Your task to perform on an android device: What is the news today? Image 0: 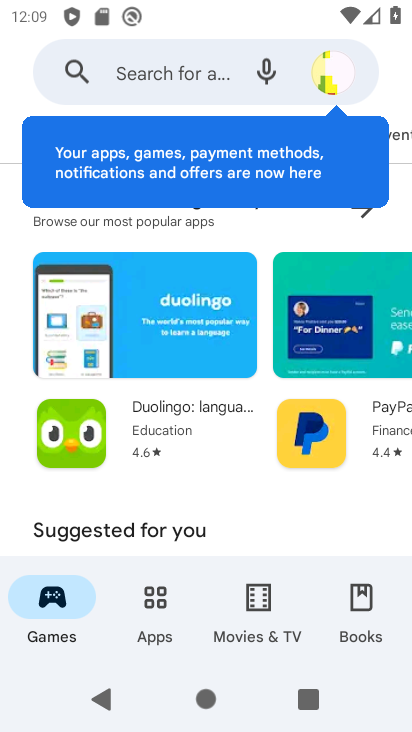
Step 0: press home button
Your task to perform on an android device: What is the news today? Image 1: 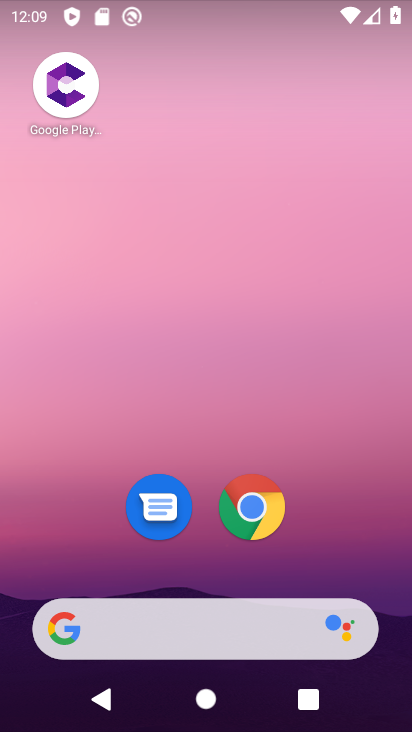
Step 1: click (257, 634)
Your task to perform on an android device: What is the news today? Image 2: 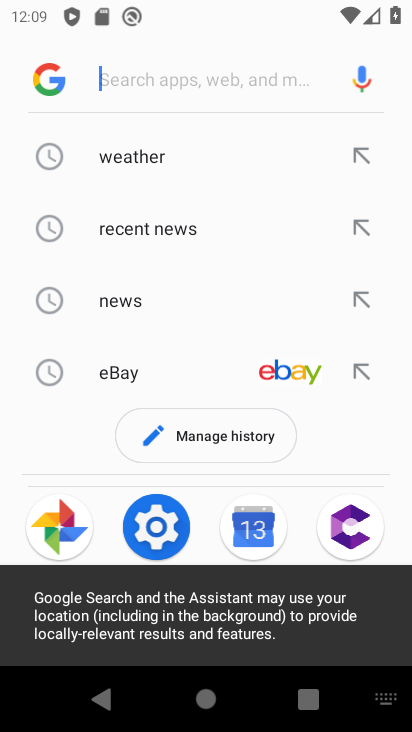
Step 2: click (163, 305)
Your task to perform on an android device: What is the news today? Image 3: 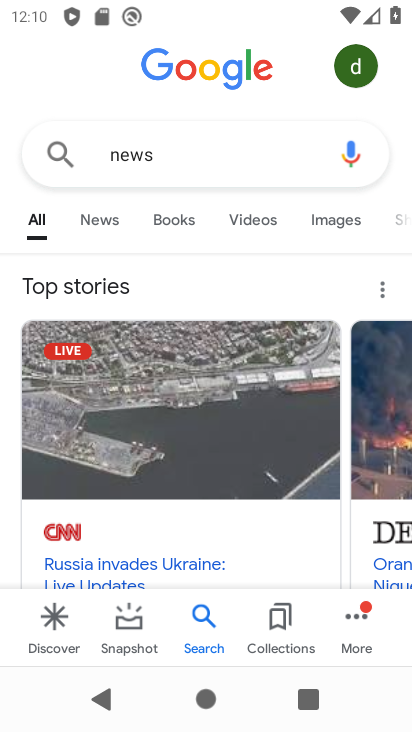
Step 3: click (102, 223)
Your task to perform on an android device: What is the news today? Image 4: 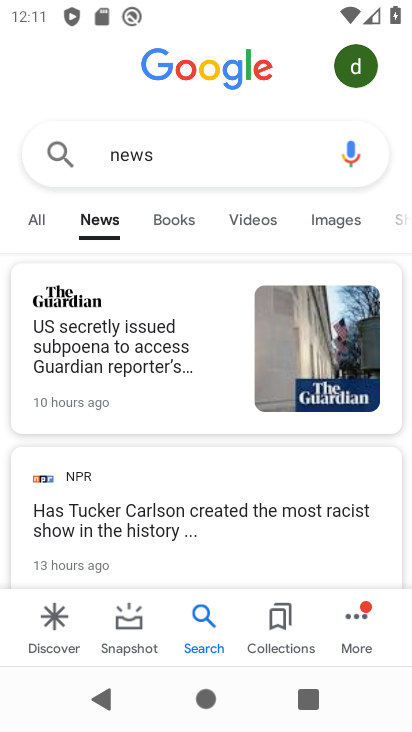
Step 4: task complete